Your task to perform on an android device: Open wifi settings Image 0: 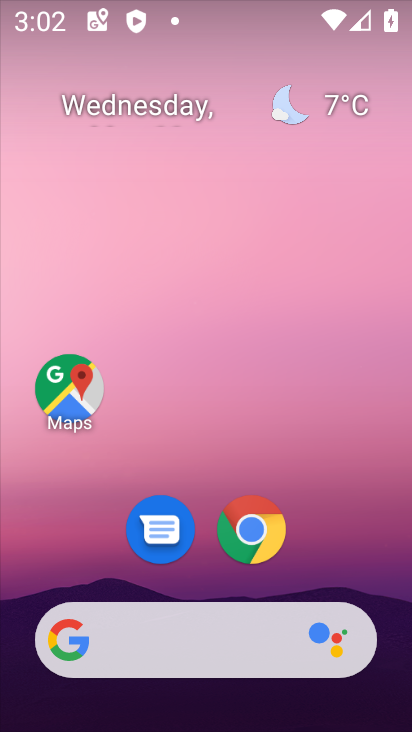
Step 0: drag from (253, 10) to (157, 389)
Your task to perform on an android device: Open wifi settings Image 1: 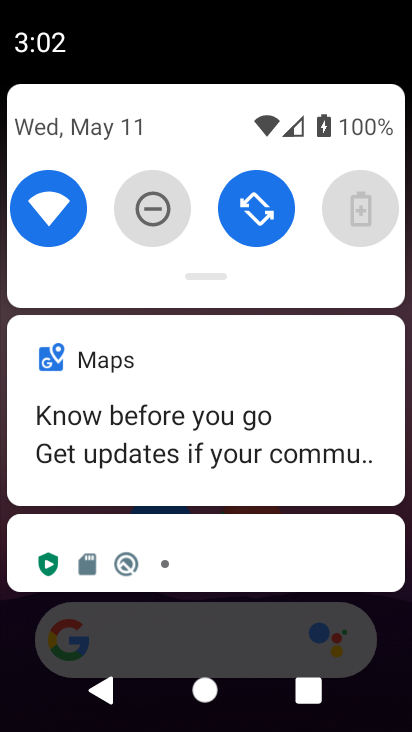
Step 1: click (61, 211)
Your task to perform on an android device: Open wifi settings Image 2: 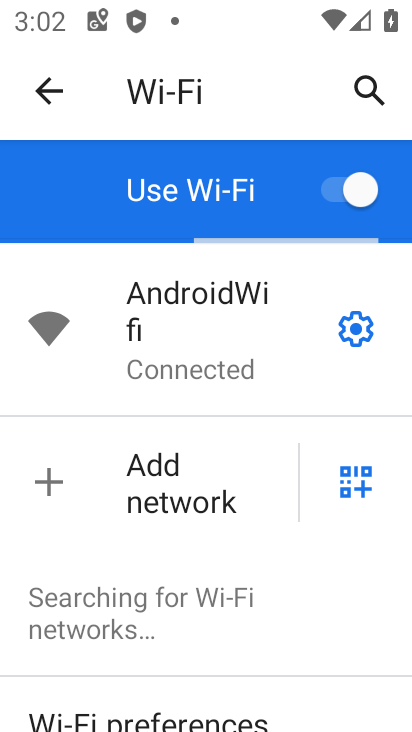
Step 2: click (349, 319)
Your task to perform on an android device: Open wifi settings Image 3: 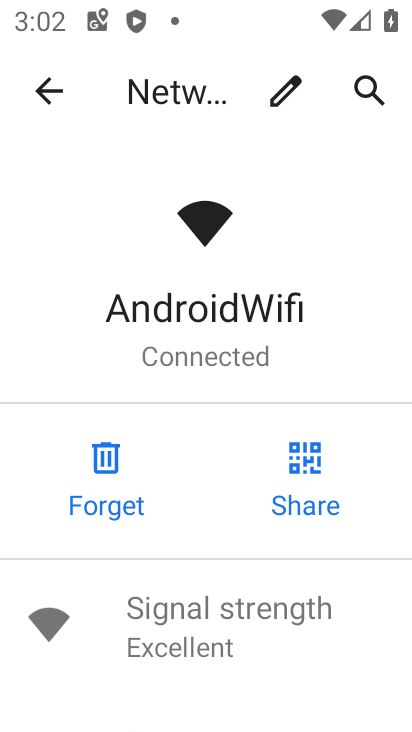
Step 3: task complete